Your task to perform on an android device: Toggle the flashlight Image 0: 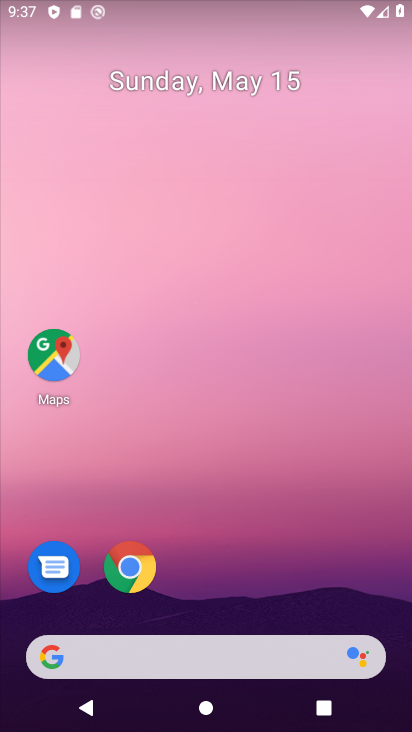
Step 0: drag from (236, 487) to (214, 49)
Your task to perform on an android device: Toggle the flashlight Image 1: 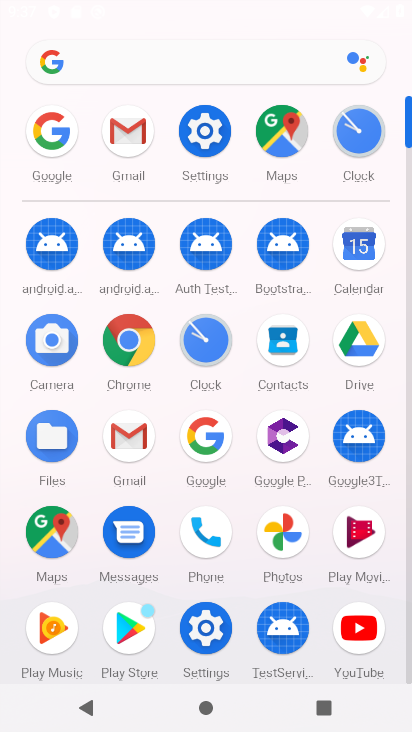
Step 1: click (205, 133)
Your task to perform on an android device: Toggle the flashlight Image 2: 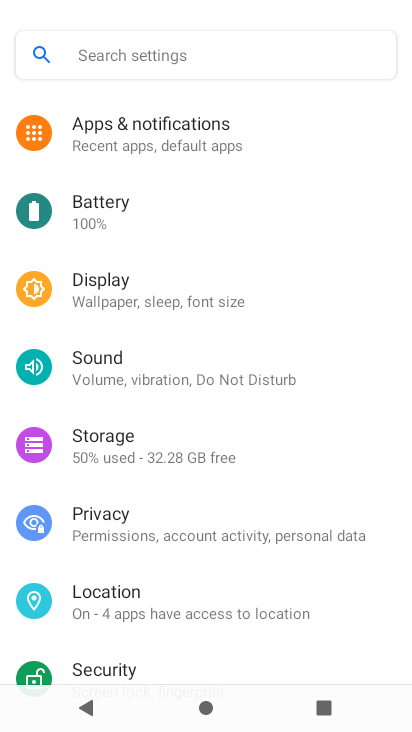
Step 2: click (148, 61)
Your task to perform on an android device: Toggle the flashlight Image 3: 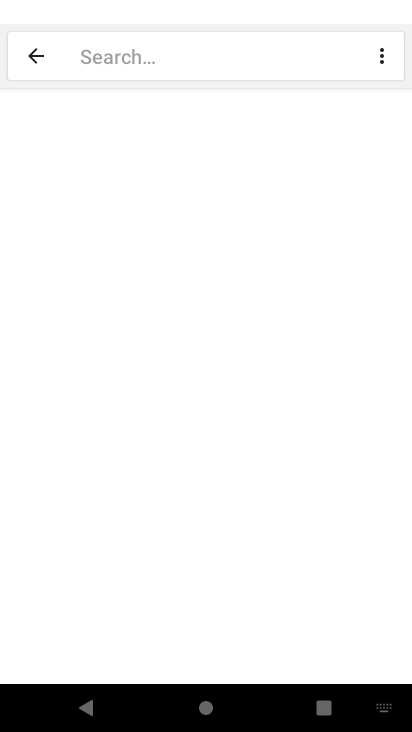
Step 3: type "flash"
Your task to perform on an android device: Toggle the flashlight Image 4: 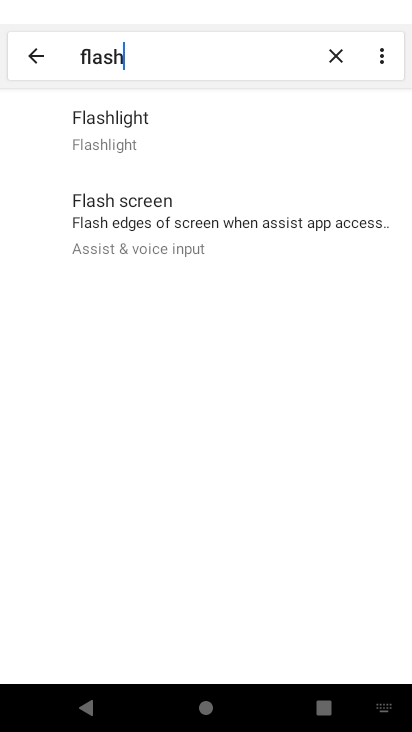
Step 4: task complete